Your task to perform on an android device: Find coffee shops on Maps Image 0: 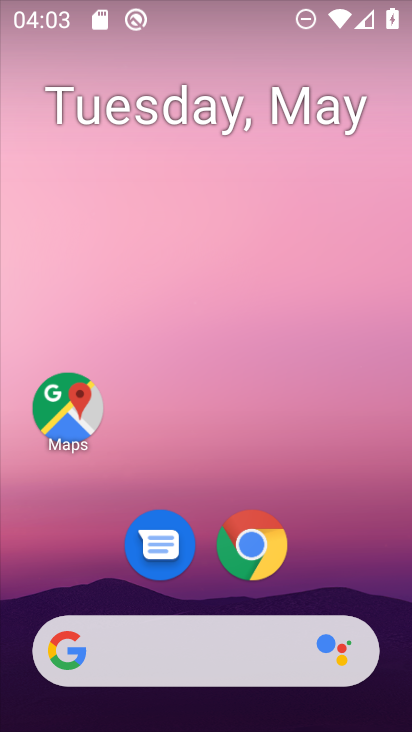
Step 0: click (72, 408)
Your task to perform on an android device: Find coffee shops on Maps Image 1: 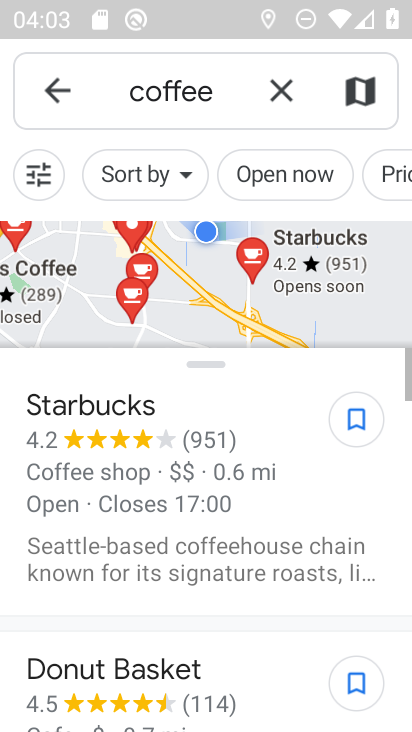
Step 1: task complete